Your task to perform on an android device: Add dell alienware to the cart on ebay Image 0: 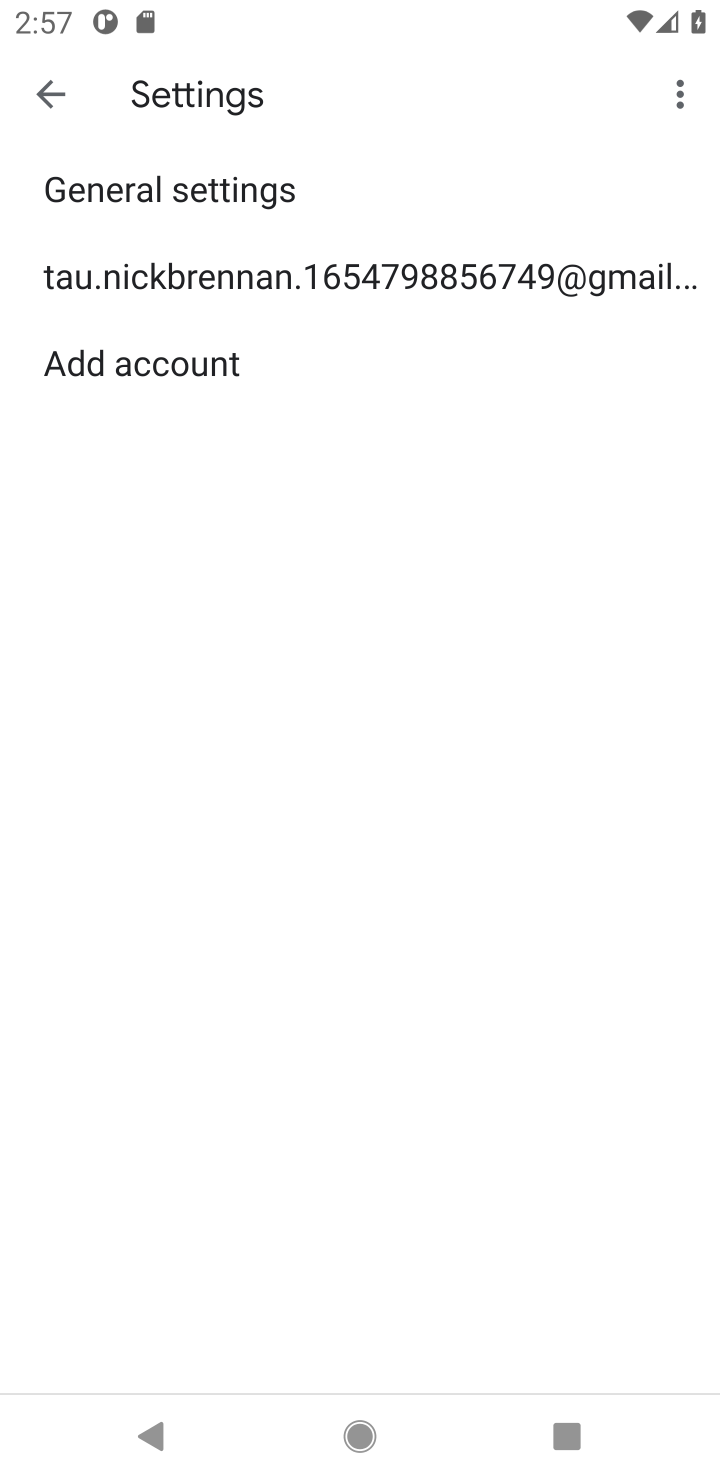
Step 0: press home button
Your task to perform on an android device: Add dell alienware to the cart on ebay Image 1: 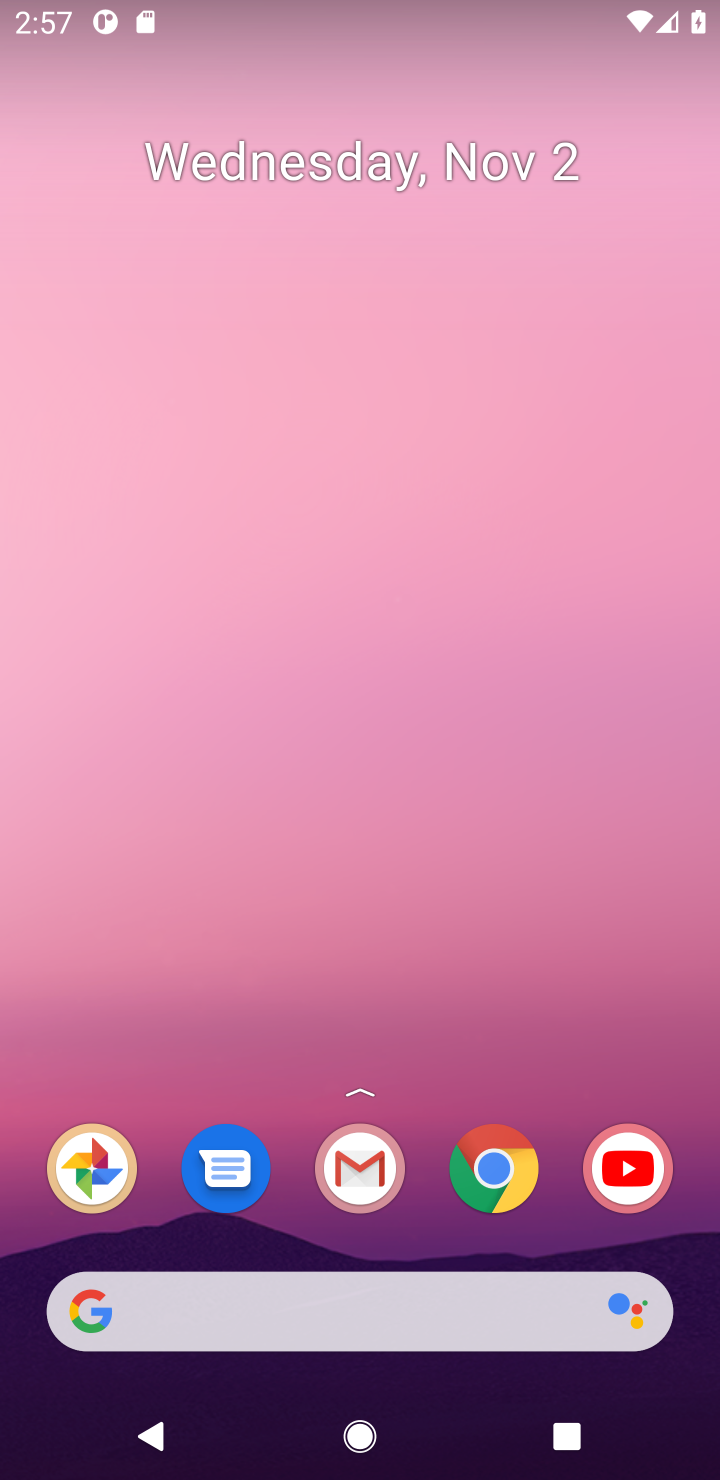
Step 1: click (380, 1279)
Your task to perform on an android device: Add dell alienware to the cart on ebay Image 2: 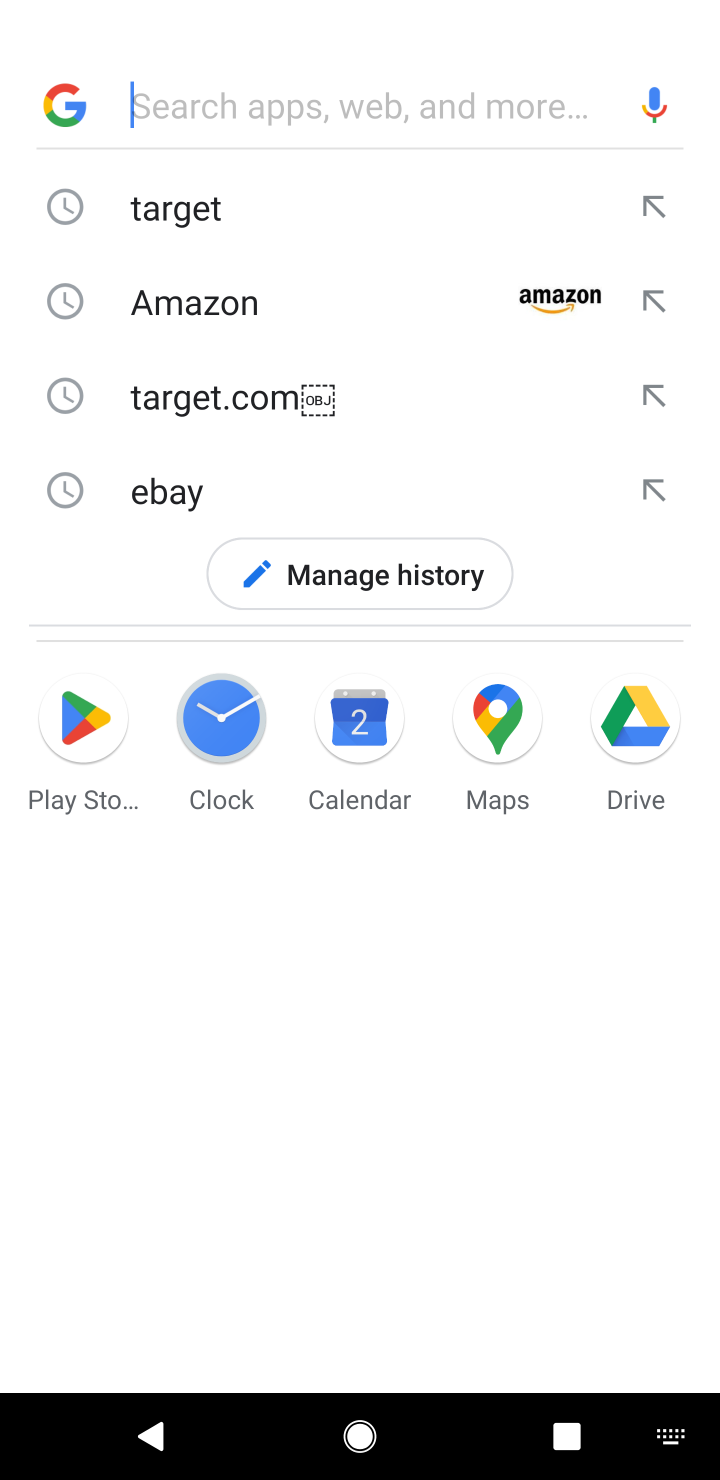
Step 2: type "ebay"
Your task to perform on an android device: Add dell alienware to the cart on ebay Image 3: 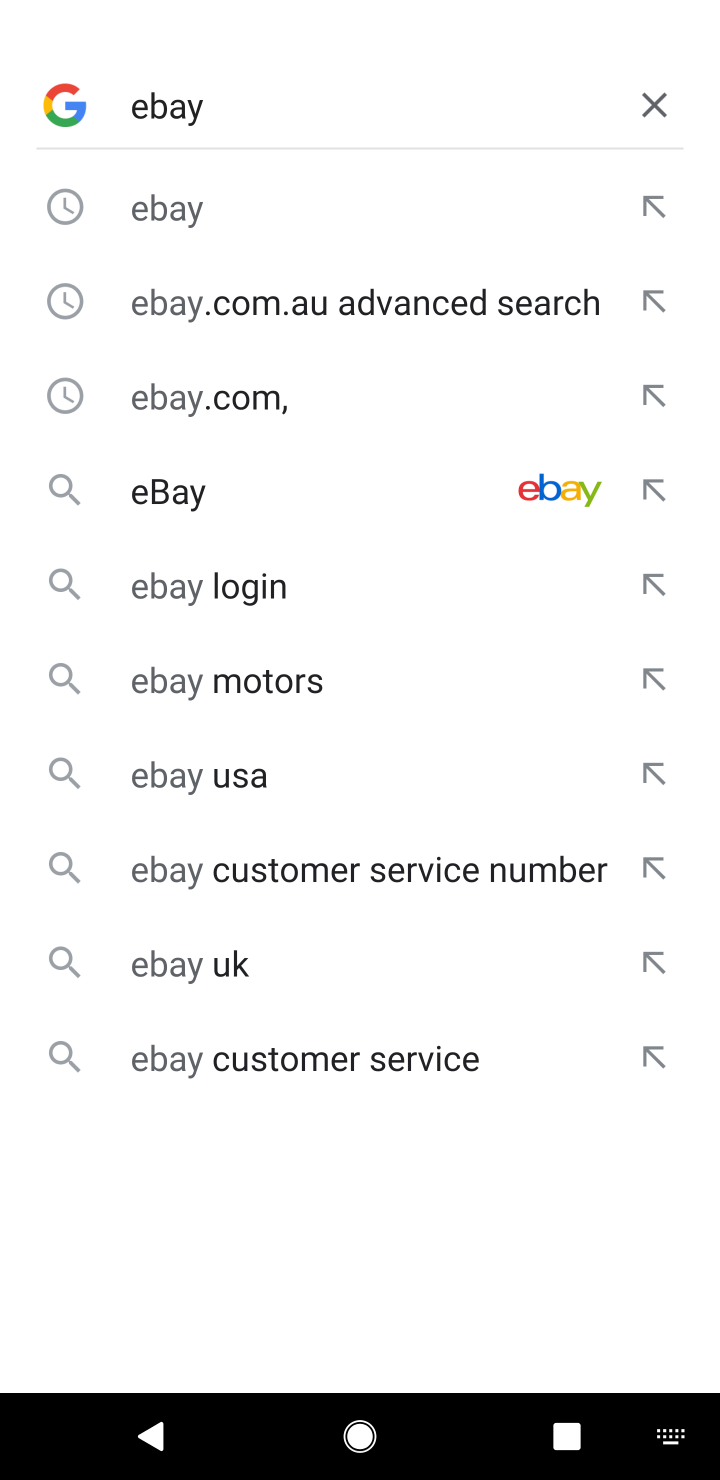
Step 3: click (163, 202)
Your task to perform on an android device: Add dell alienware to the cart on ebay Image 4: 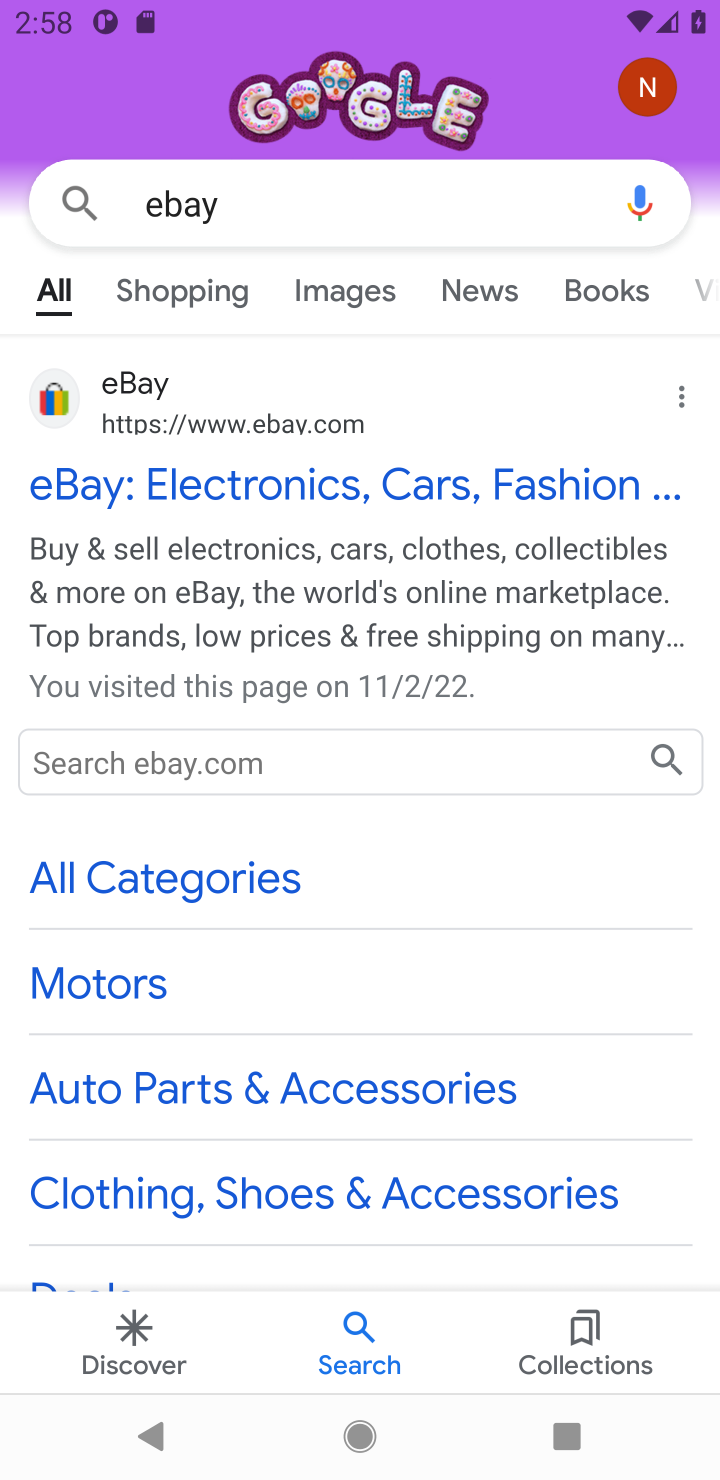
Step 4: click (129, 377)
Your task to perform on an android device: Add dell alienware to the cart on ebay Image 5: 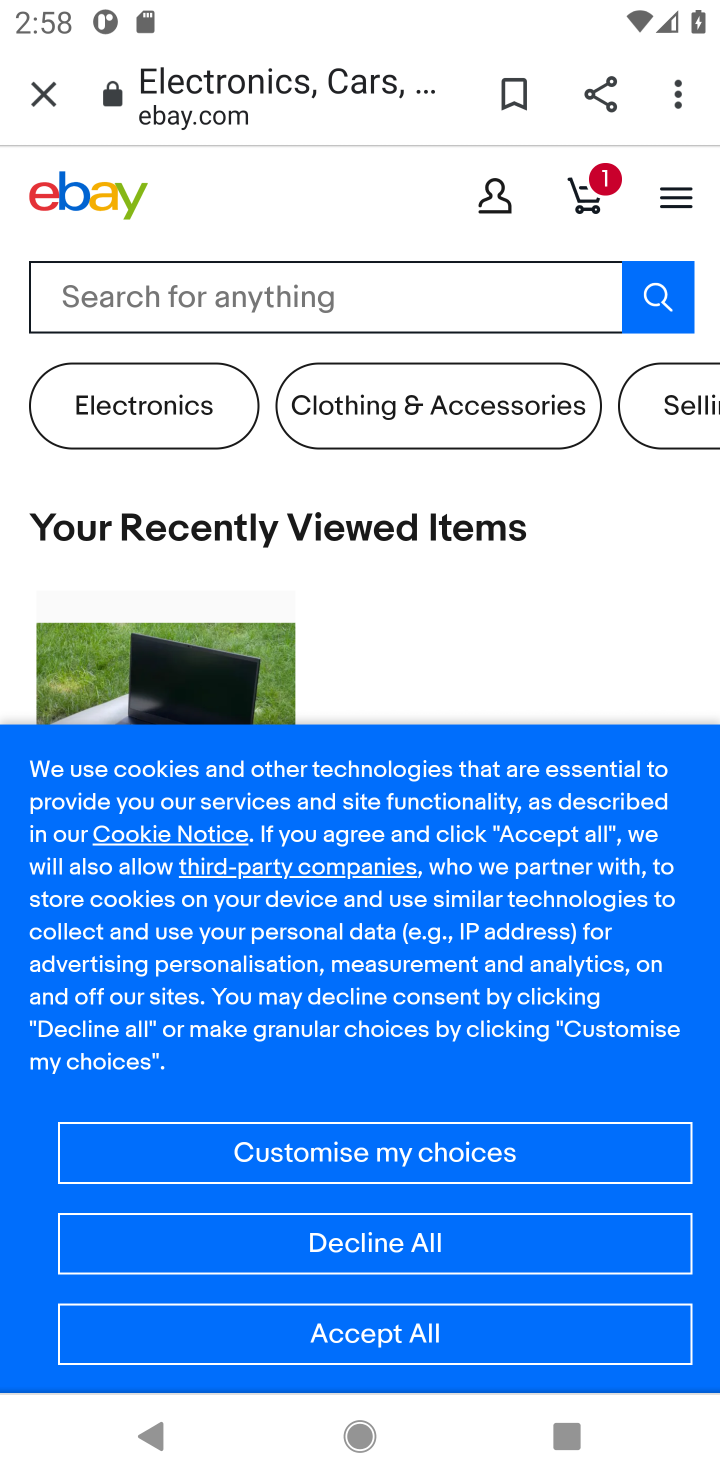
Step 5: click (391, 1245)
Your task to perform on an android device: Add dell alienware to the cart on ebay Image 6: 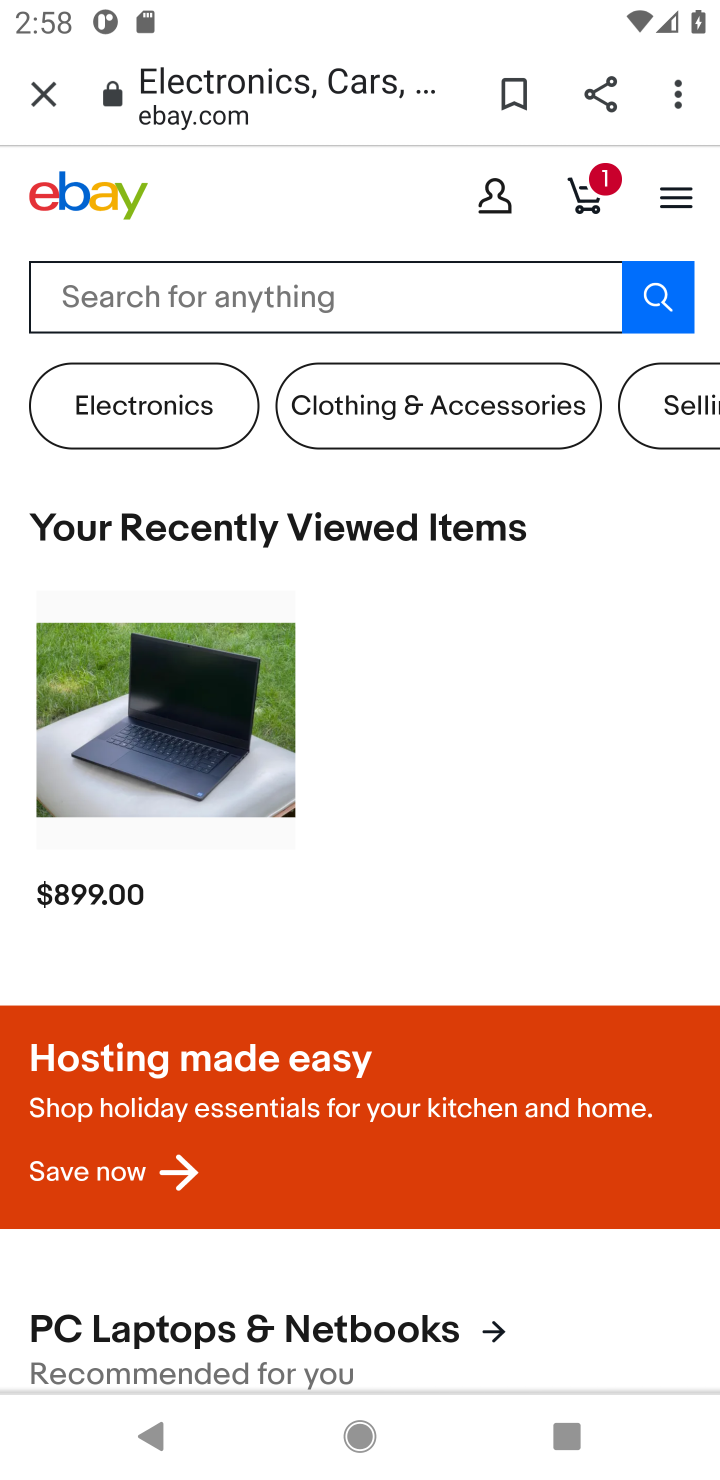
Step 6: click (364, 298)
Your task to perform on an android device: Add dell alienware to the cart on ebay Image 7: 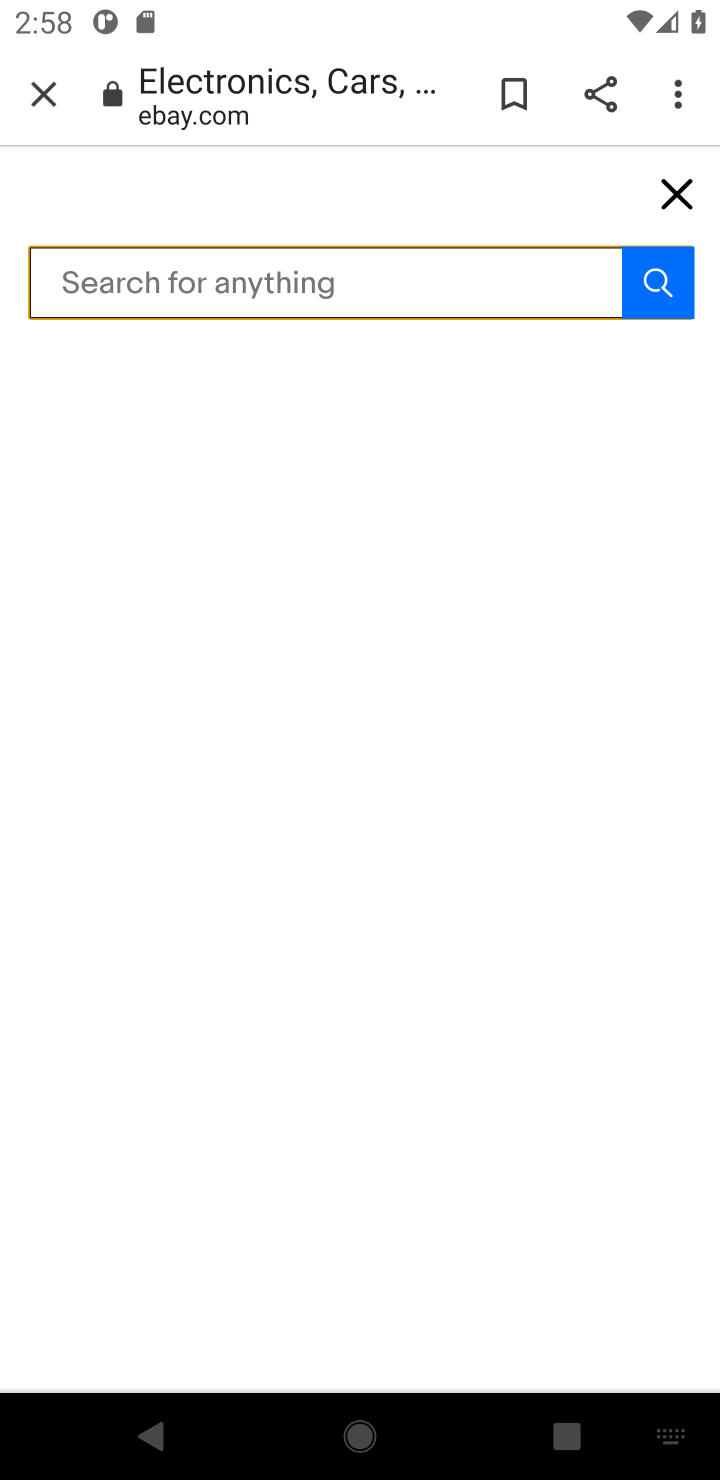
Step 7: type " dell alienware "
Your task to perform on an android device: Add dell alienware to the cart on ebay Image 8: 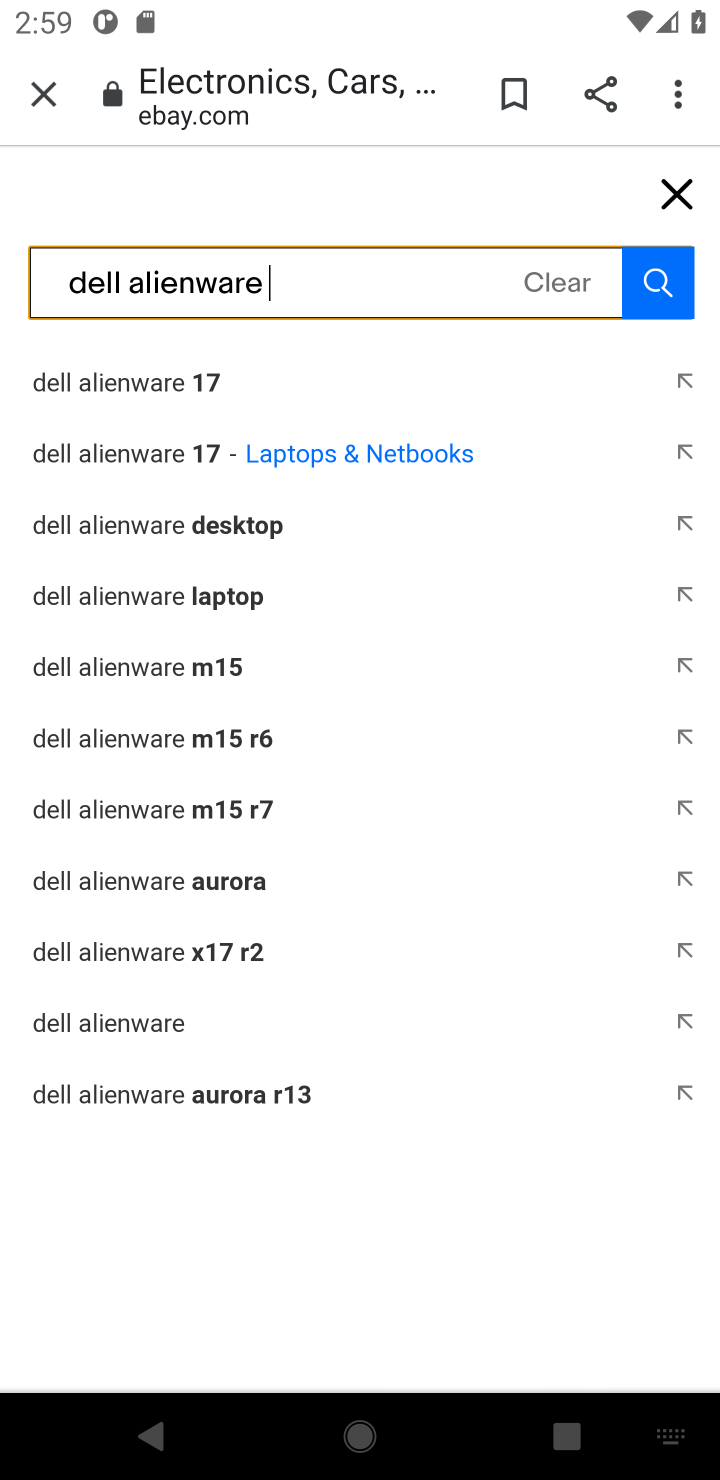
Step 8: click (107, 1013)
Your task to perform on an android device: Add dell alienware to the cart on ebay Image 9: 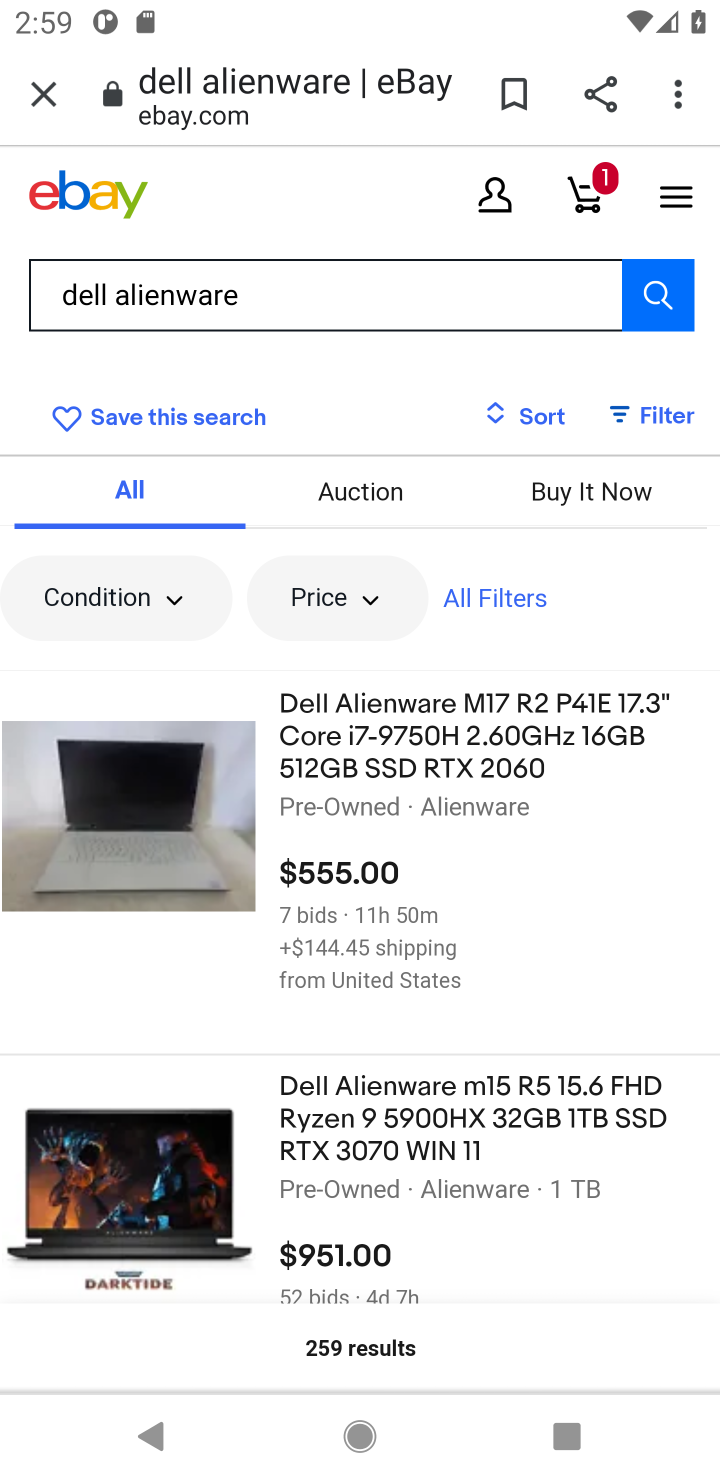
Step 9: click (245, 820)
Your task to perform on an android device: Add dell alienware to the cart on ebay Image 10: 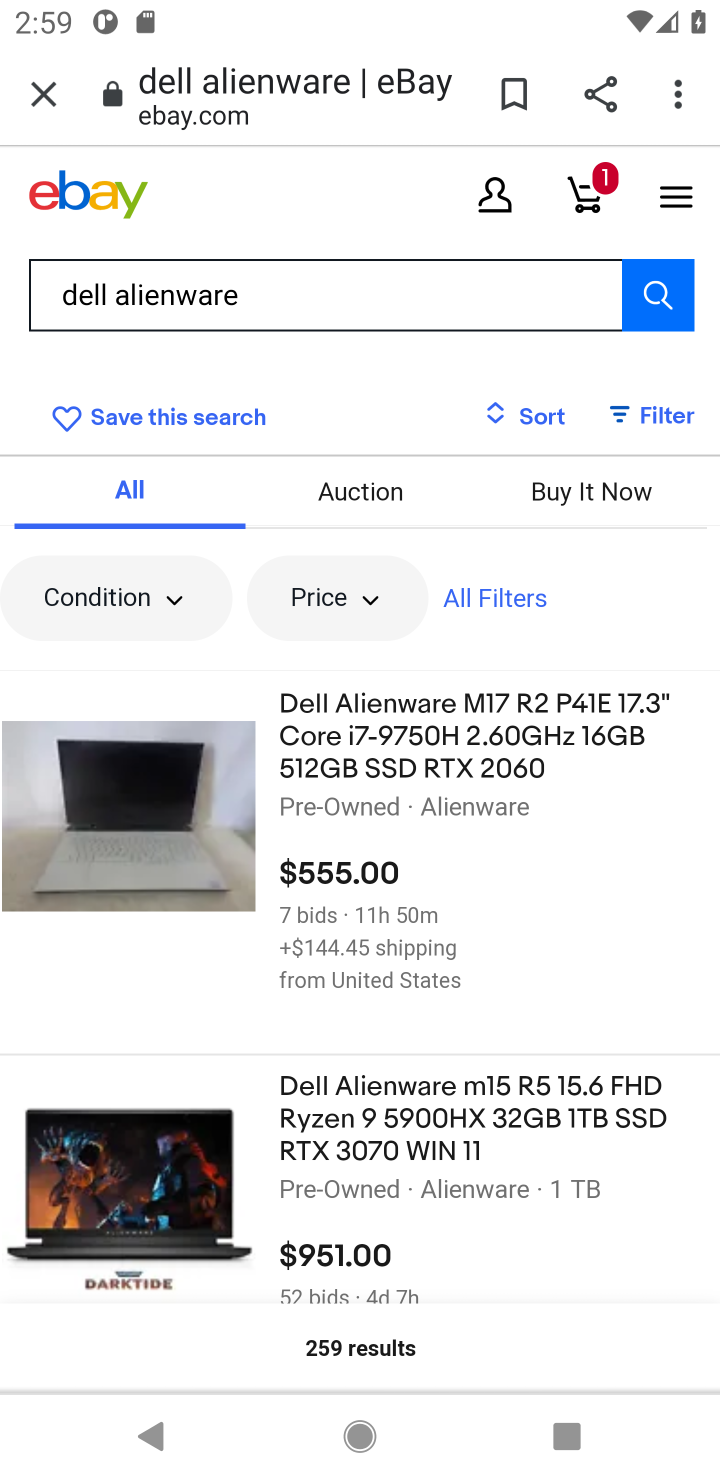
Step 10: click (245, 820)
Your task to perform on an android device: Add dell alienware to the cart on ebay Image 11: 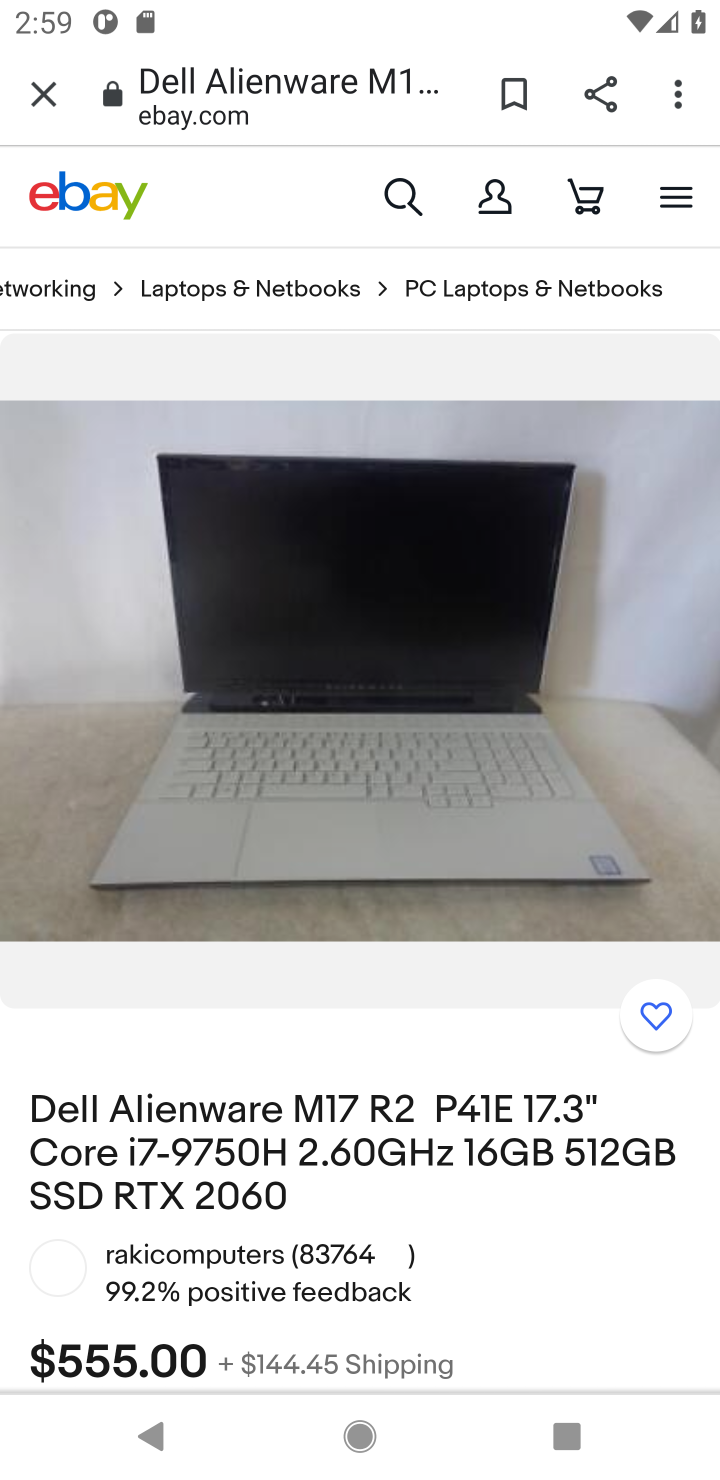
Step 11: drag from (427, 1091) to (435, 694)
Your task to perform on an android device: Add dell alienware to the cart on ebay Image 12: 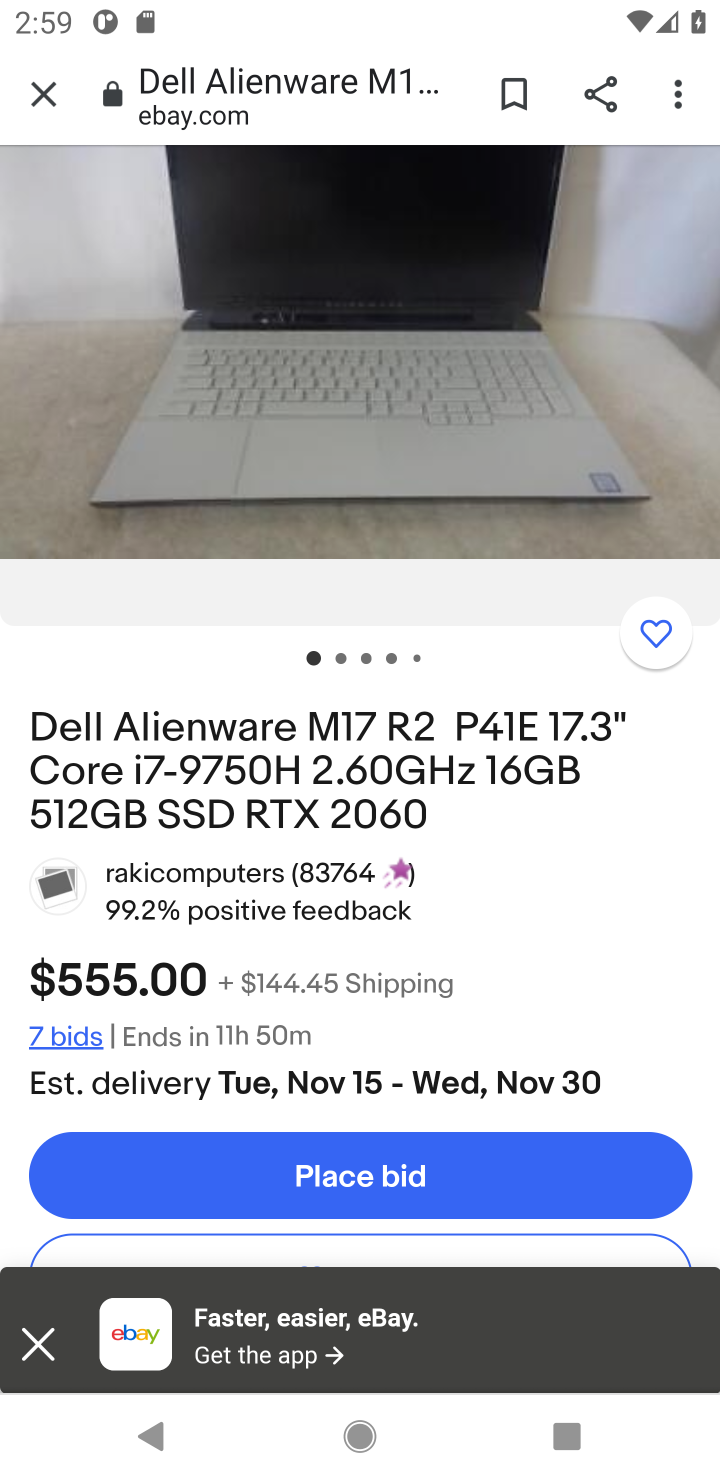
Step 12: drag from (497, 984) to (516, 772)
Your task to perform on an android device: Add dell alienware to the cart on ebay Image 13: 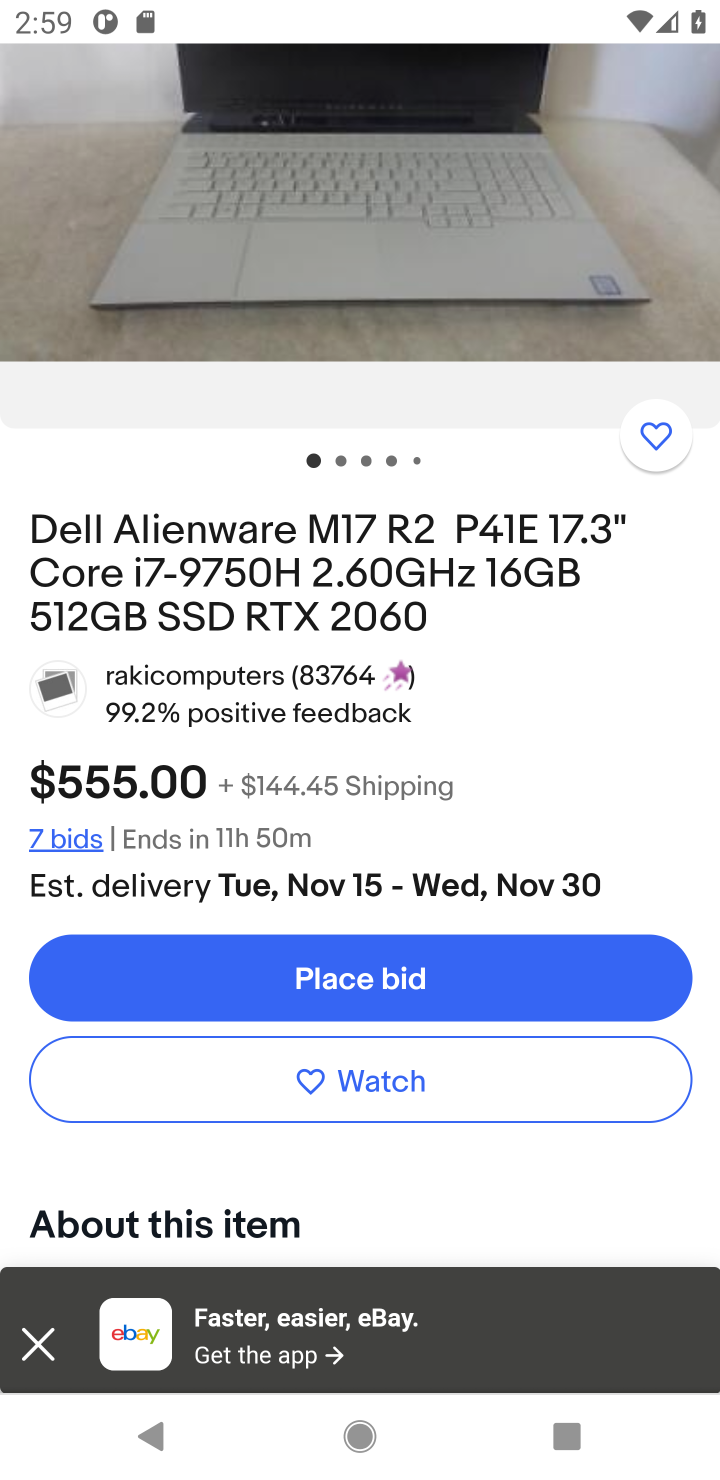
Step 13: click (348, 988)
Your task to perform on an android device: Add dell alienware to the cart on ebay Image 14: 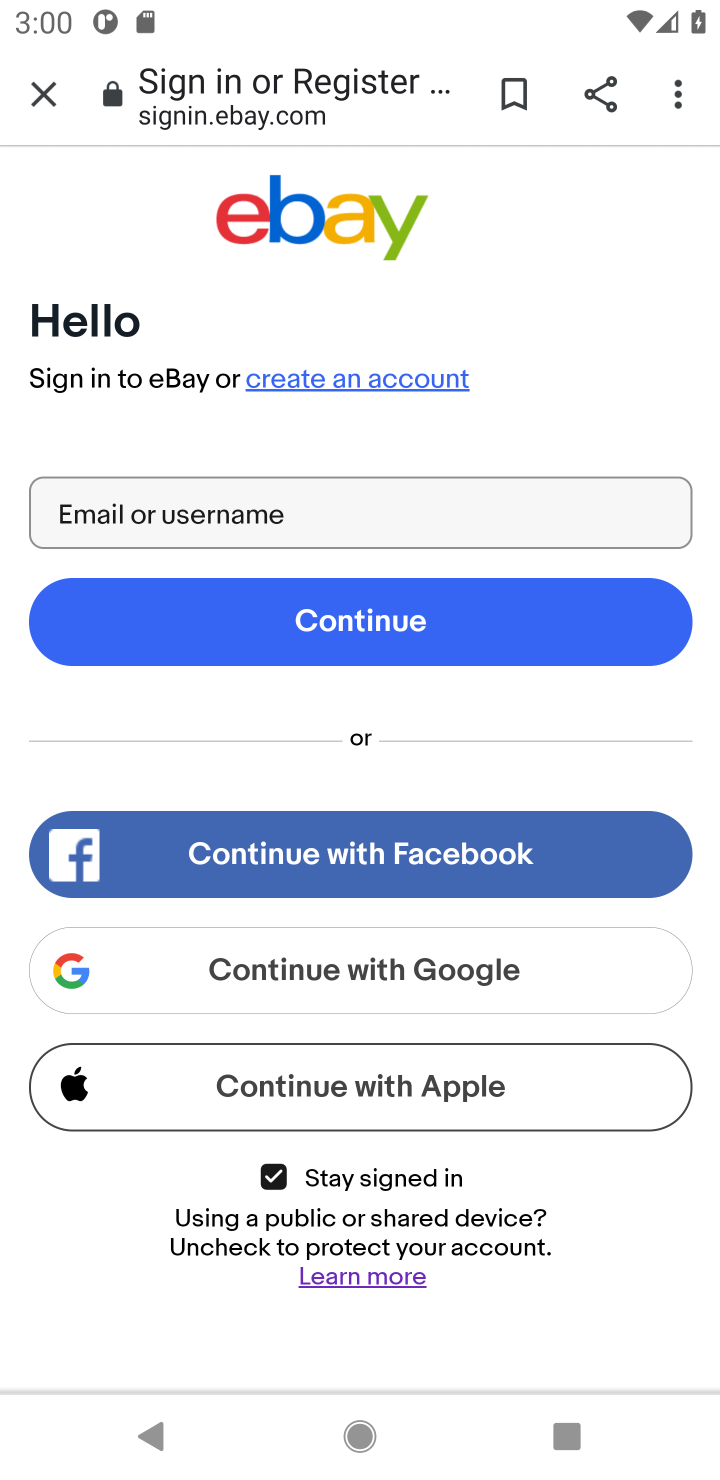
Step 14: task complete